Your task to perform on an android device: move a message to another label in the gmail app Image 0: 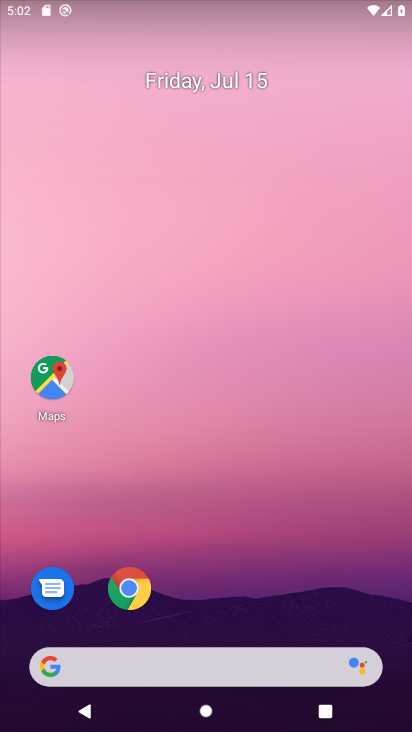
Step 0: drag from (224, 551) to (264, 1)
Your task to perform on an android device: move a message to another label in the gmail app Image 1: 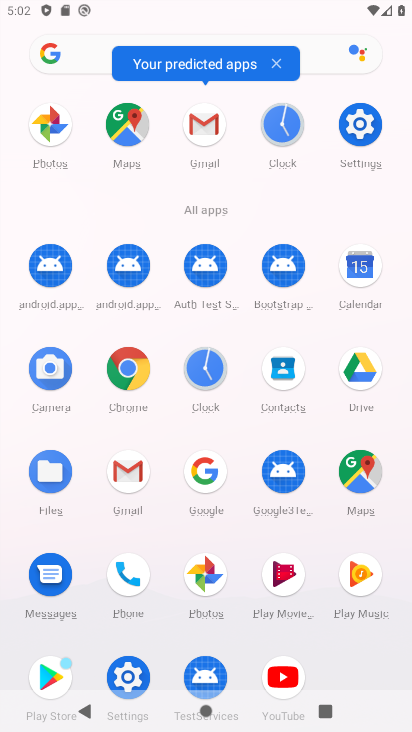
Step 1: click (127, 476)
Your task to perform on an android device: move a message to another label in the gmail app Image 2: 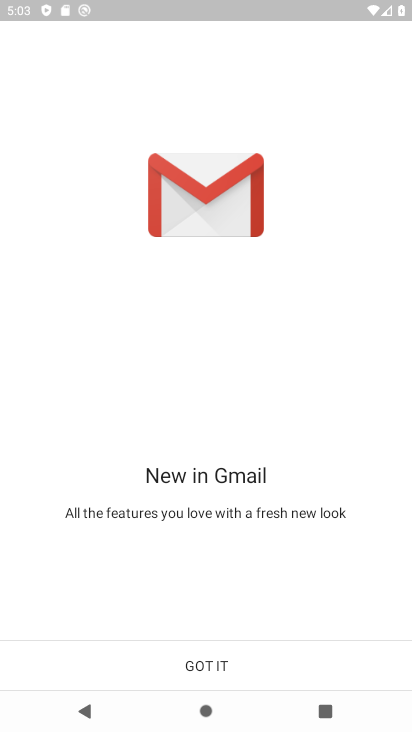
Step 2: click (213, 672)
Your task to perform on an android device: move a message to another label in the gmail app Image 3: 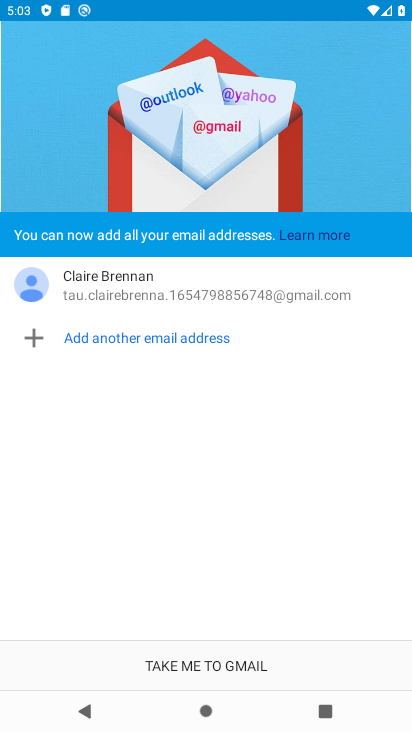
Step 3: click (213, 672)
Your task to perform on an android device: move a message to another label in the gmail app Image 4: 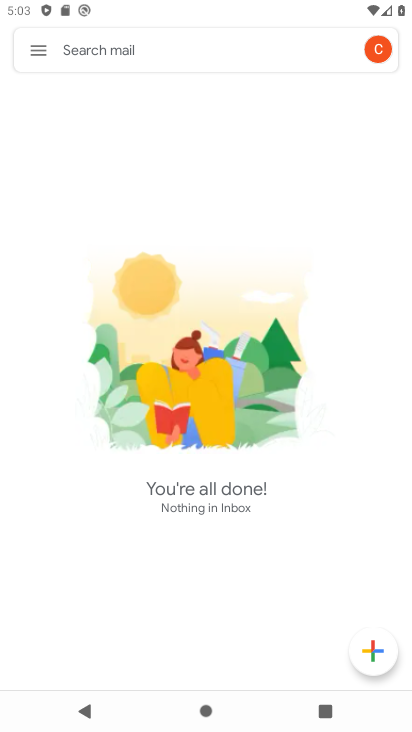
Step 4: task complete